Your task to perform on an android device: check battery use Image 0: 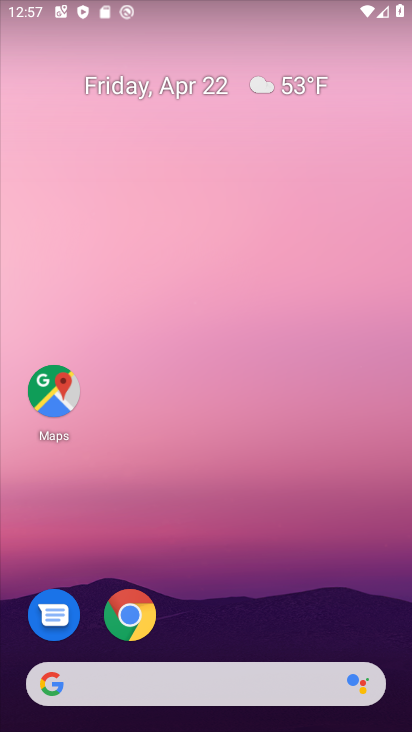
Step 0: drag from (321, 589) to (302, 0)
Your task to perform on an android device: check battery use Image 1: 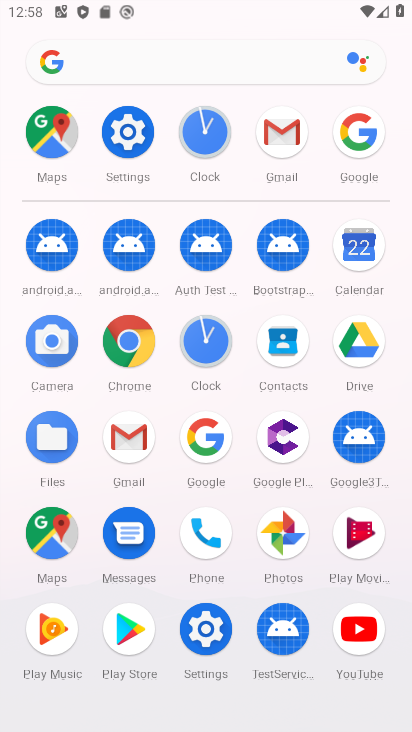
Step 1: click (126, 136)
Your task to perform on an android device: check battery use Image 2: 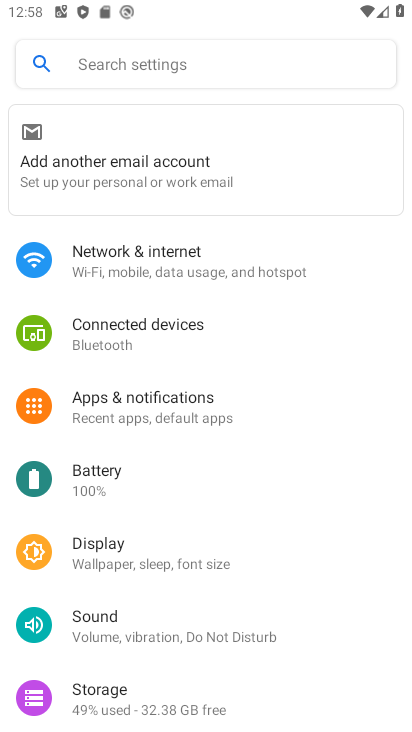
Step 2: click (95, 484)
Your task to perform on an android device: check battery use Image 3: 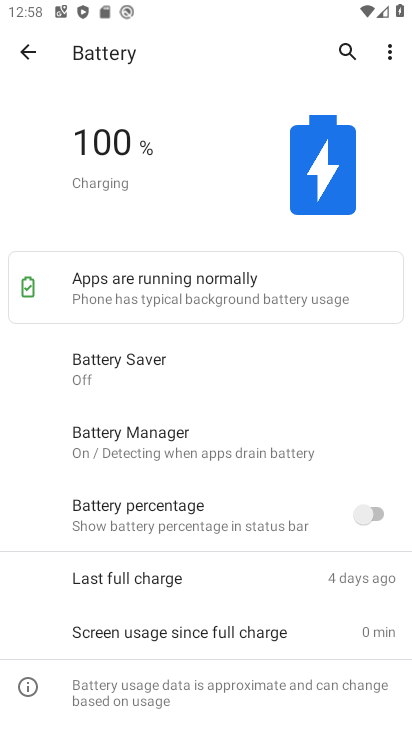
Step 3: click (388, 52)
Your task to perform on an android device: check battery use Image 4: 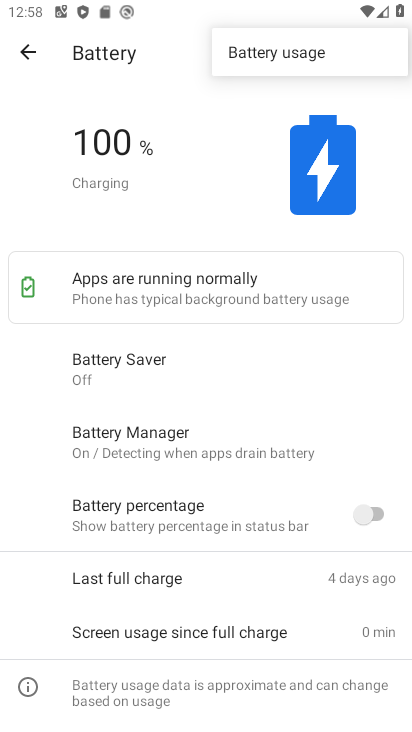
Step 4: click (276, 58)
Your task to perform on an android device: check battery use Image 5: 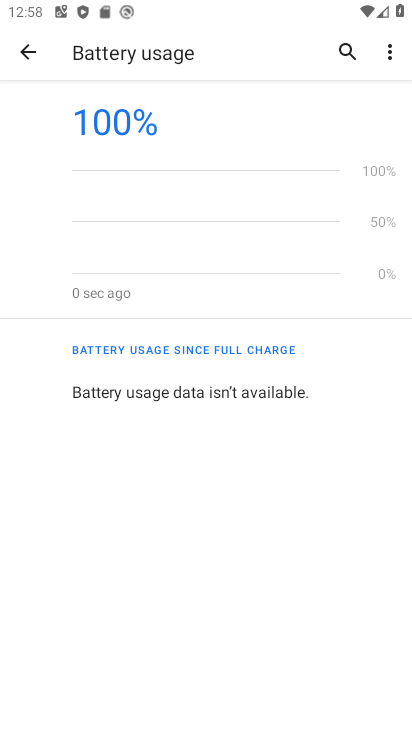
Step 5: task complete